Your task to perform on an android device: Open notification settings Image 0: 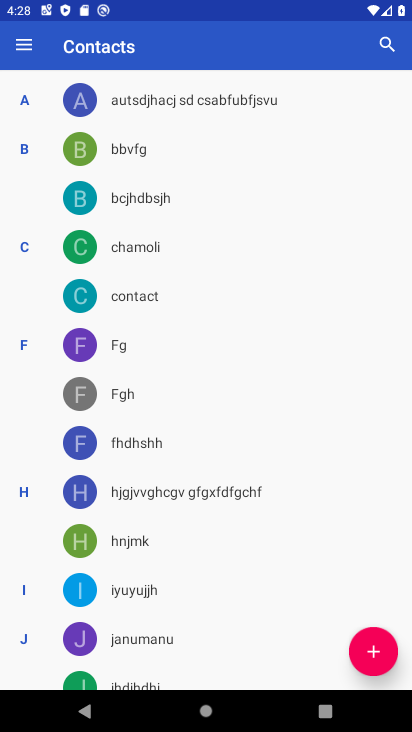
Step 0: press home button
Your task to perform on an android device: Open notification settings Image 1: 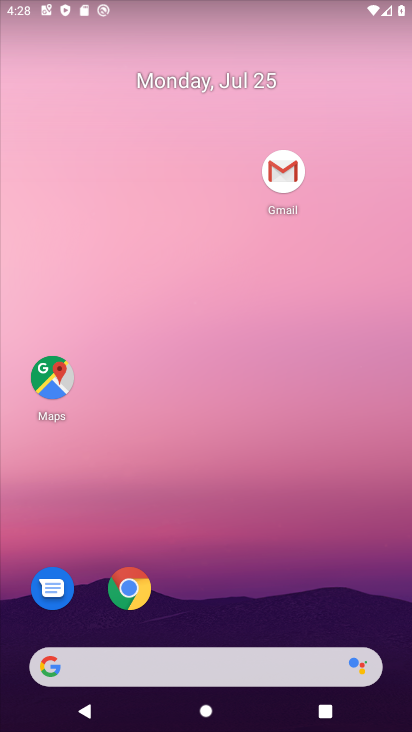
Step 1: drag from (321, 590) to (242, 50)
Your task to perform on an android device: Open notification settings Image 2: 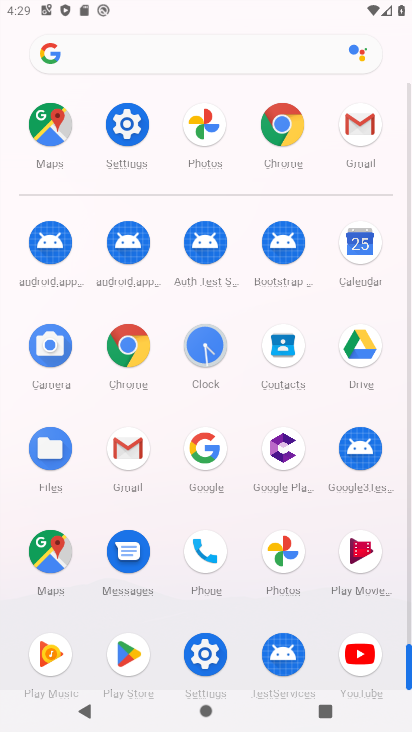
Step 2: click (143, 122)
Your task to perform on an android device: Open notification settings Image 3: 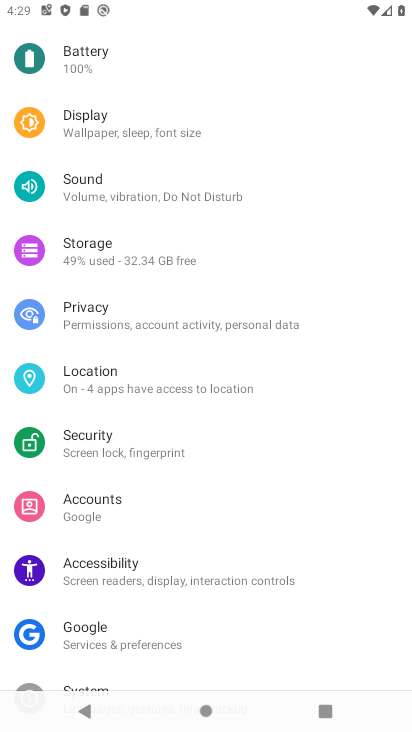
Step 3: drag from (203, 90) to (148, 722)
Your task to perform on an android device: Open notification settings Image 4: 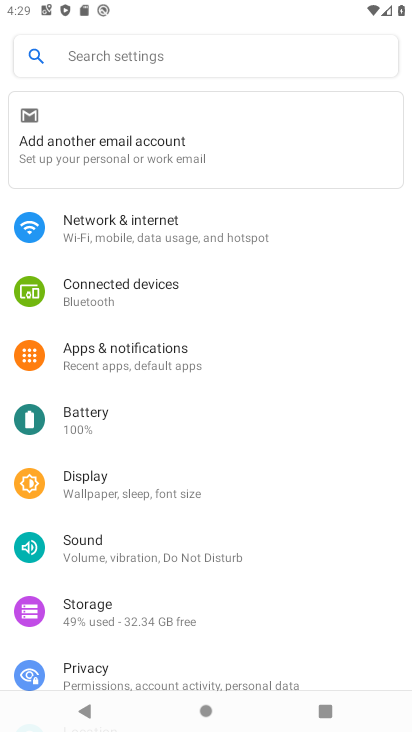
Step 4: click (117, 354)
Your task to perform on an android device: Open notification settings Image 5: 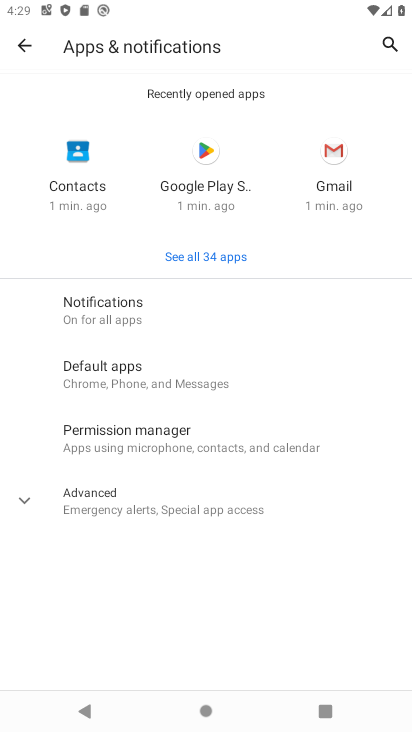
Step 5: click (116, 314)
Your task to perform on an android device: Open notification settings Image 6: 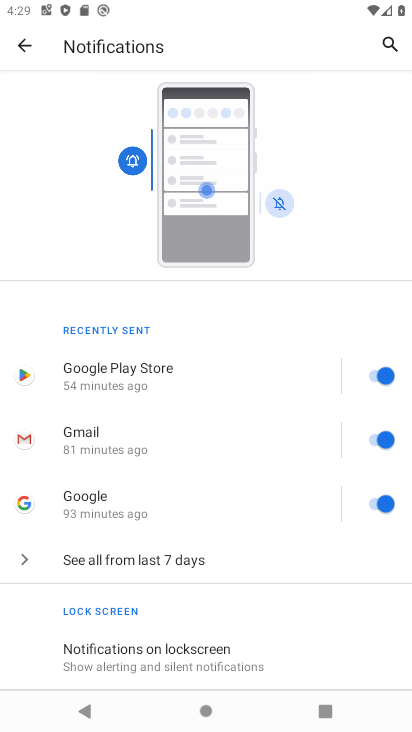
Step 6: task complete